Your task to perform on an android device: search for starred emails in the gmail app Image 0: 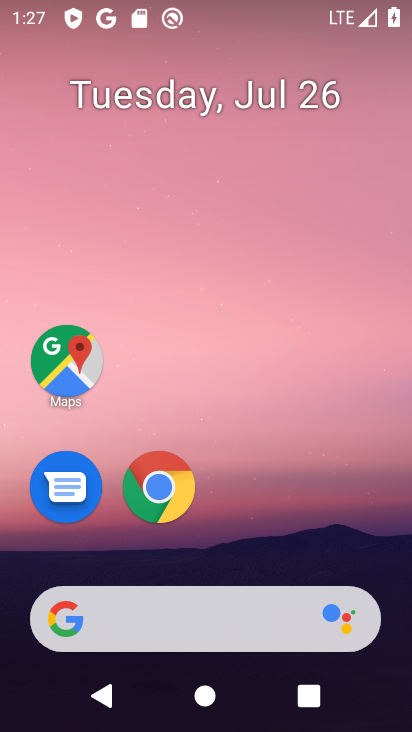
Step 0: drag from (237, 662) to (259, 137)
Your task to perform on an android device: search for starred emails in the gmail app Image 1: 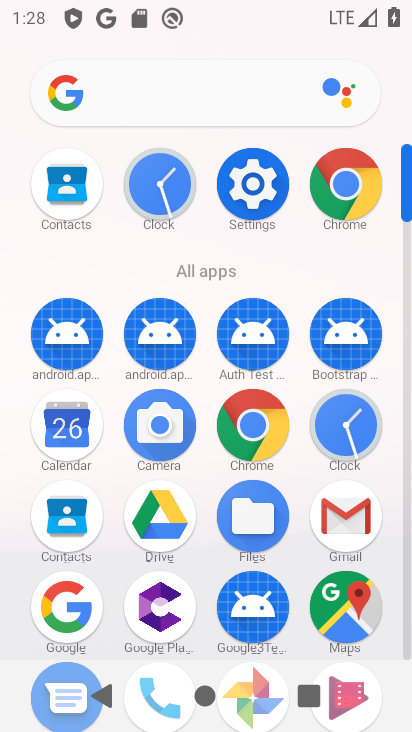
Step 1: click (342, 525)
Your task to perform on an android device: search for starred emails in the gmail app Image 2: 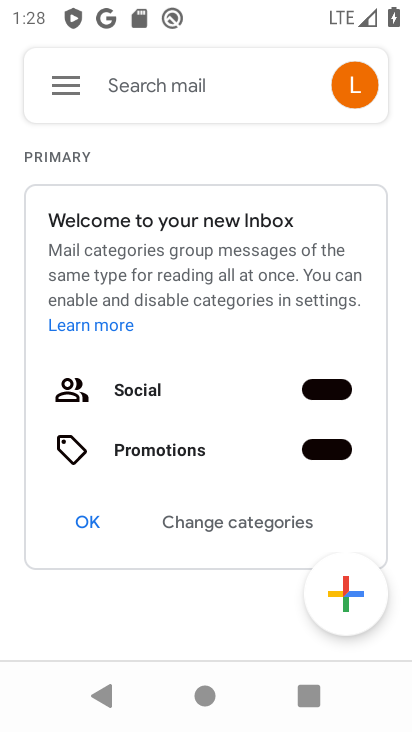
Step 2: click (58, 92)
Your task to perform on an android device: search for starred emails in the gmail app Image 3: 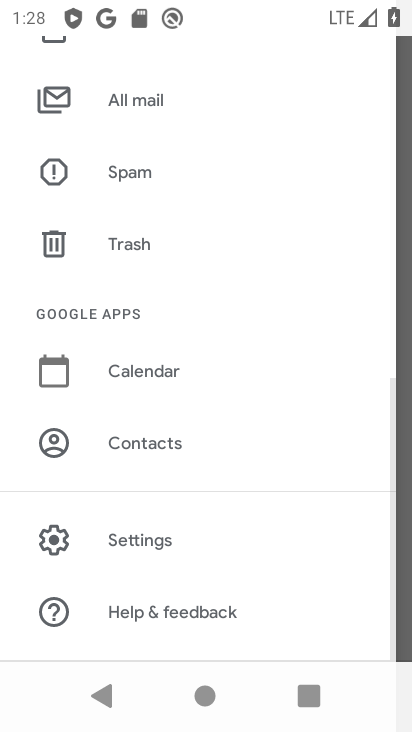
Step 3: drag from (116, 214) to (123, 647)
Your task to perform on an android device: search for starred emails in the gmail app Image 4: 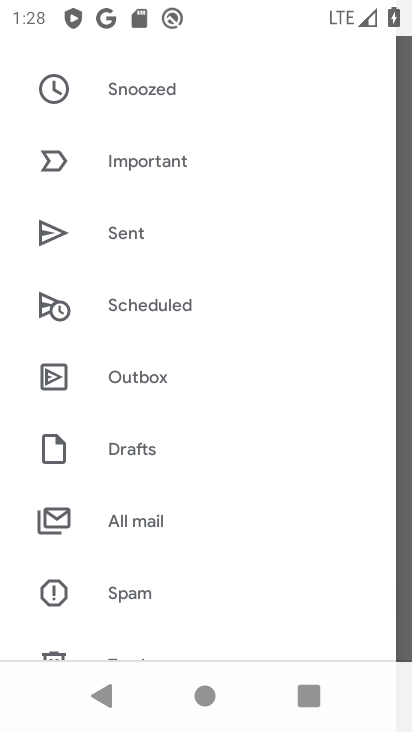
Step 4: drag from (211, 242) to (185, 615)
Your task to perform on an android device: search for starred emails in the gmail app Image 5: 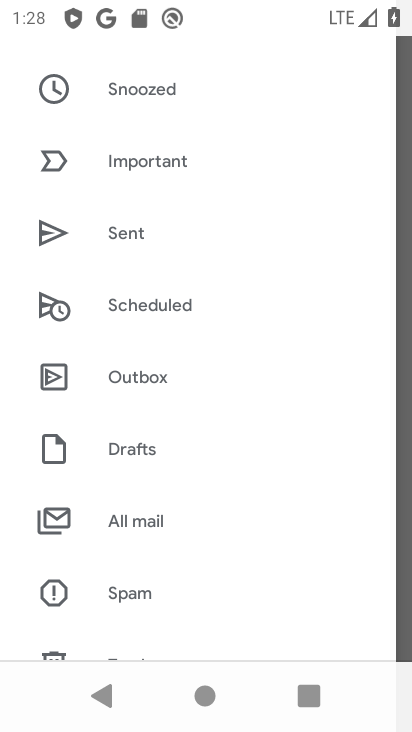
Step 5: drag from (156, 95) to (163, 510)
Your task to perform on an android device: search for starred emails in the gmail app Image 6: 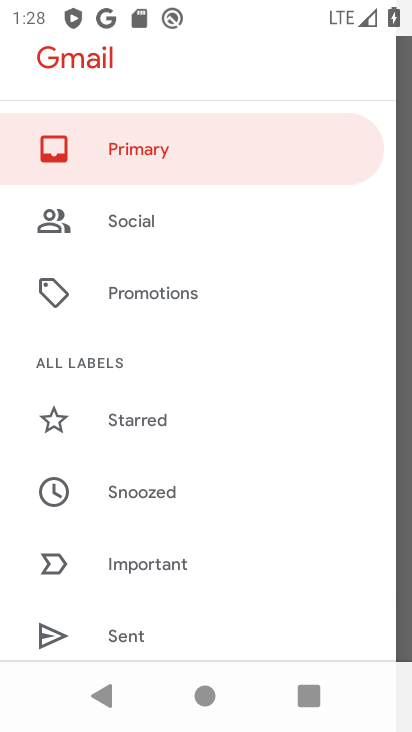
Step 6: click (133, 428)
Your task to perform on an android device: search for starred emails in the gmail app Image 7: 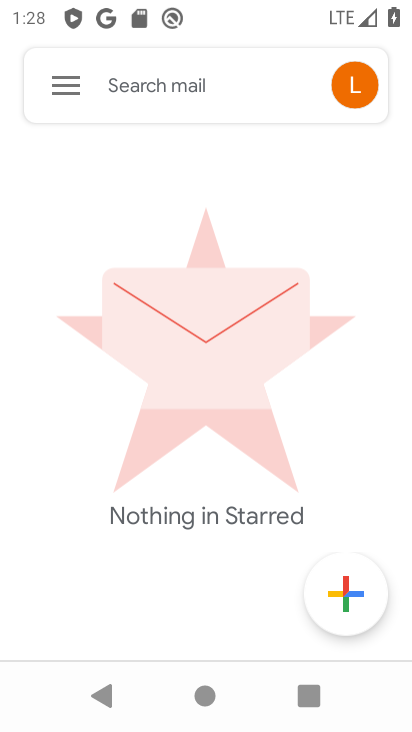
Step 7: task complete